Your task to perform on an android device: toggle notification dots Image 0: 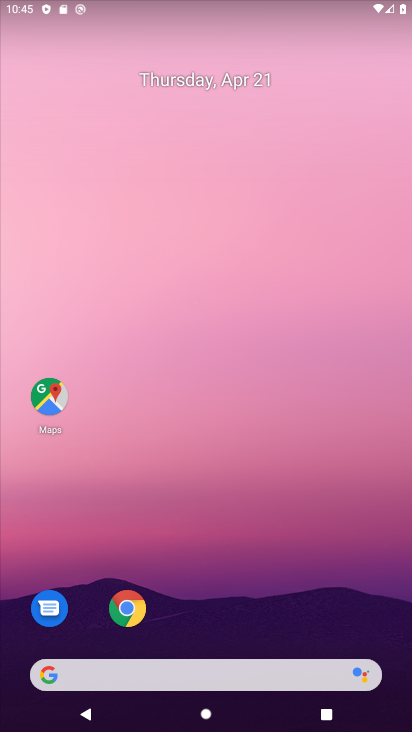
Step 0: drag from (215, 567) to (246, 7)
Your task to perform on an android device: toggle notification dots Image 1: 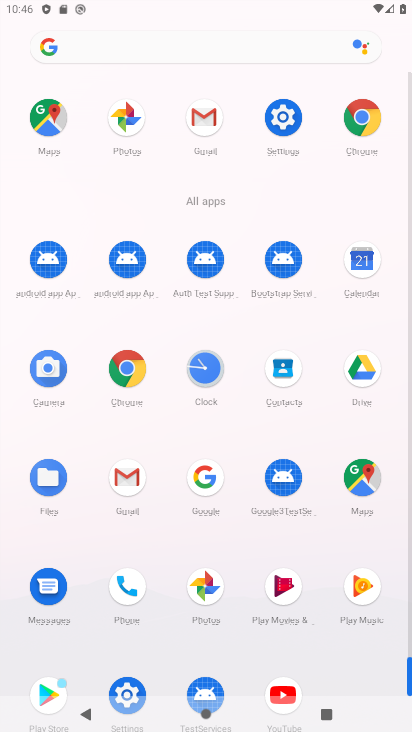
Step 1: click (283, 117)
Your task to perform on an android device: toggle notification dots Image 2: 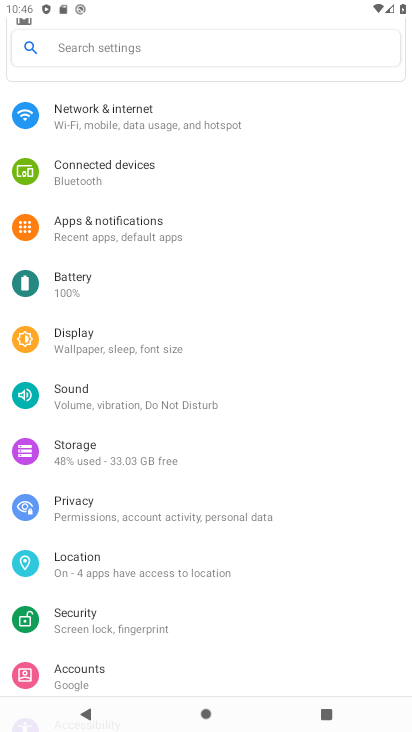
Step 2: click (148, 230)
Your task to perform on an android device: toggle notification dots Image 3: 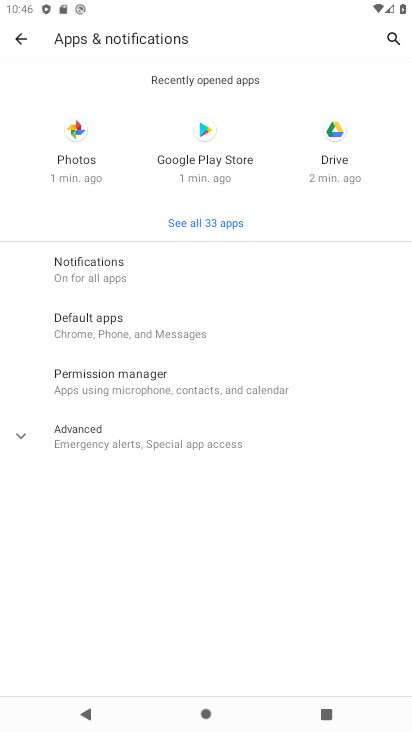
Step 3: click (108, 262)
Your task to perform on an android device: toggle notification dots Image 4: 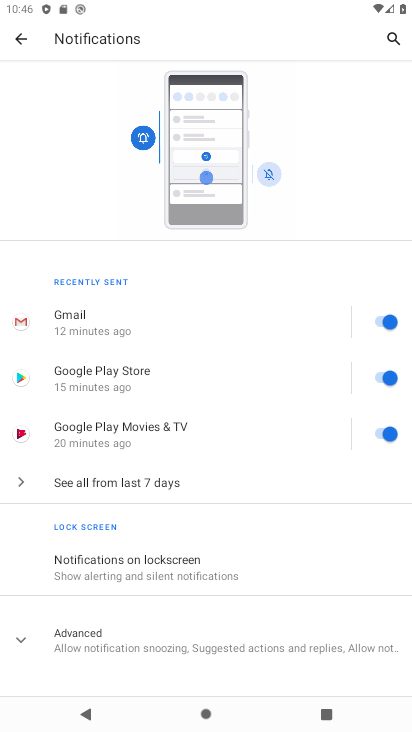
Step 4: click (172, 646)
Your task to perform on an android device: toggle notification dots Image 5: 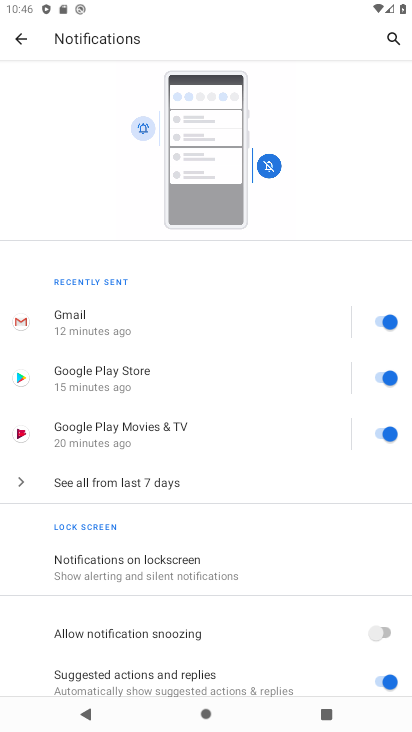
Step 5: drag from (246, 611) to (293, 507)
Your task to perform on an android device: toggle notification dots Image 6: 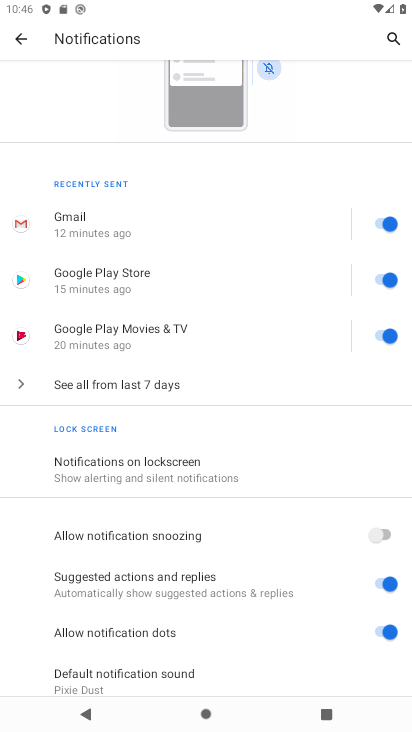
Step 6: click (395, 635)
Your task to perform on an android device: toggle notification dots Image 7: 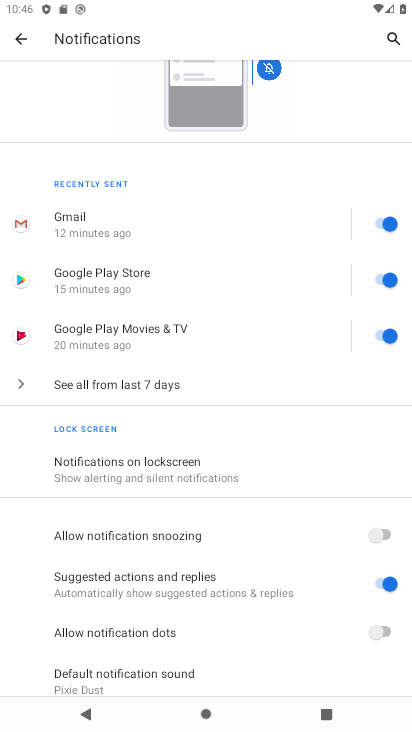
Step 7: task complete